Your task to perform on an android device: turn off airplane mode Image 0: 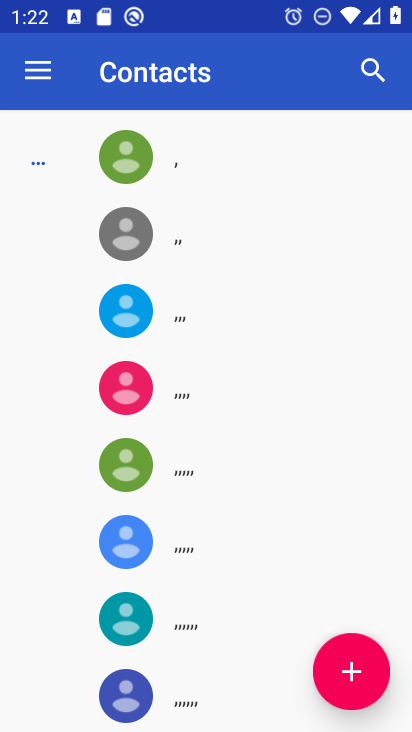
Step 0: press home button
Your task to perform on an android device: turn off airplane mode Image 1: 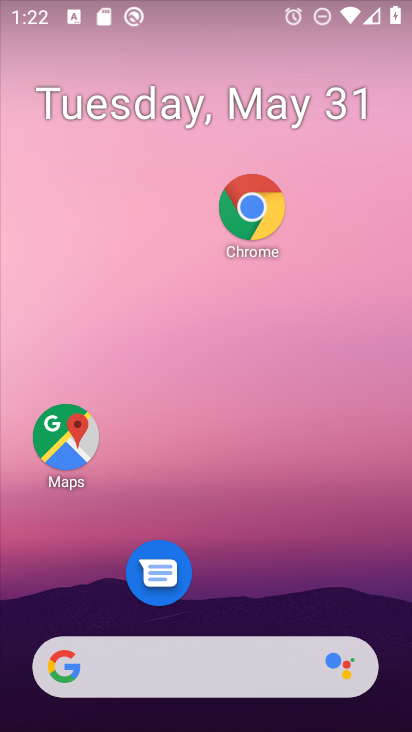
Step 1: drag from (202, 665) to (238, 82)
Your task to perform on an android device: turn off airplane mode Image 2: 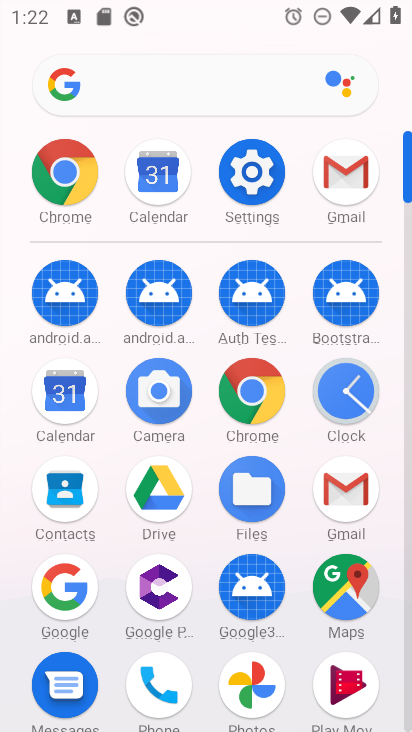
Step 2: click (262, 205)
Your task to perform on an android device: turn off airplane mode Image 3: 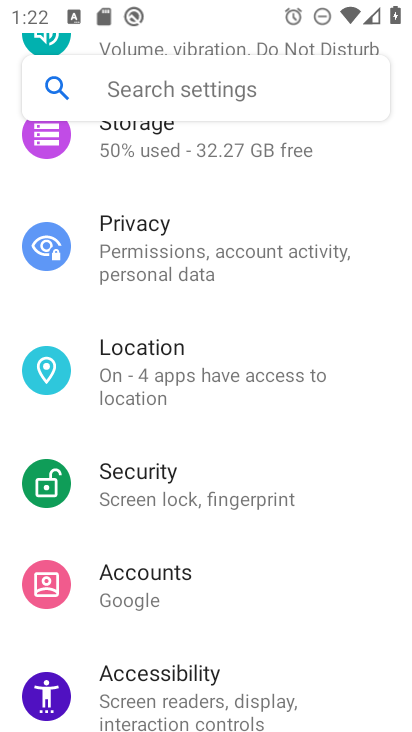
Step 3: drag from (265, 292) to (380, 481)
Your task to perform on an android device: turn off airplane mode Image 4: 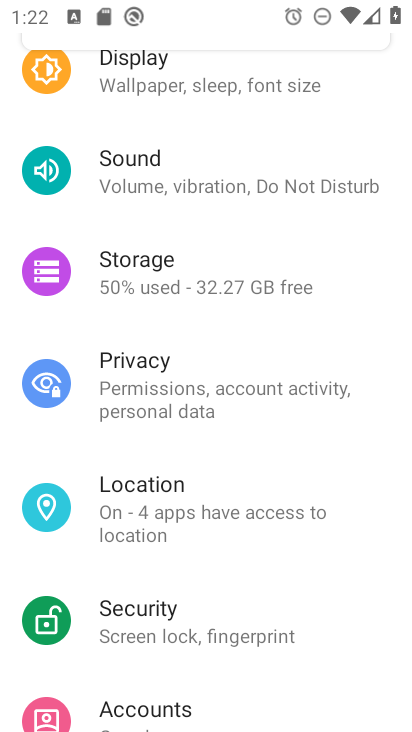
Step 4: drag from (132, 167) to (224, 728)
Your task to perform on an android device: turn off airplane mode Image 5: 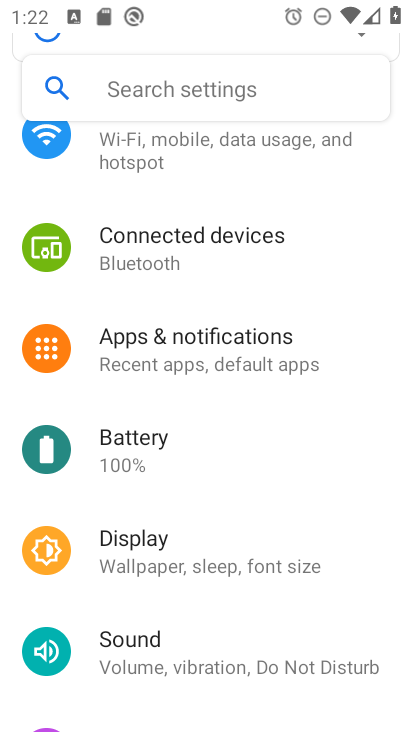
Step 5: drag from (130, 235) to (213, 723)
Your task to perform on an android device: turn off airplane mode Image 6: 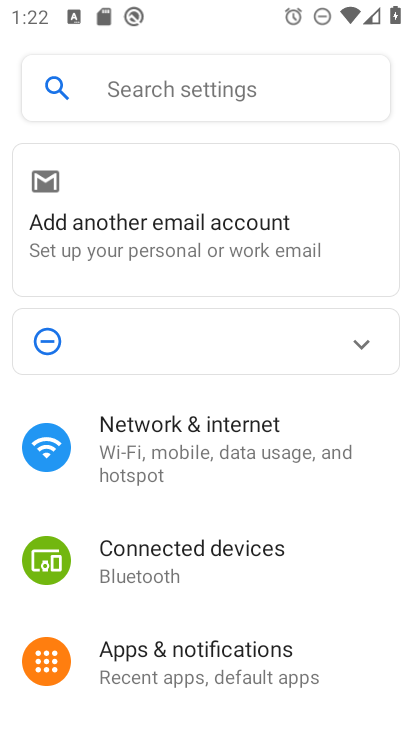
Step 6: click (241, 443)
Your task to perform on an android device: turn off airplane mode Image 7: 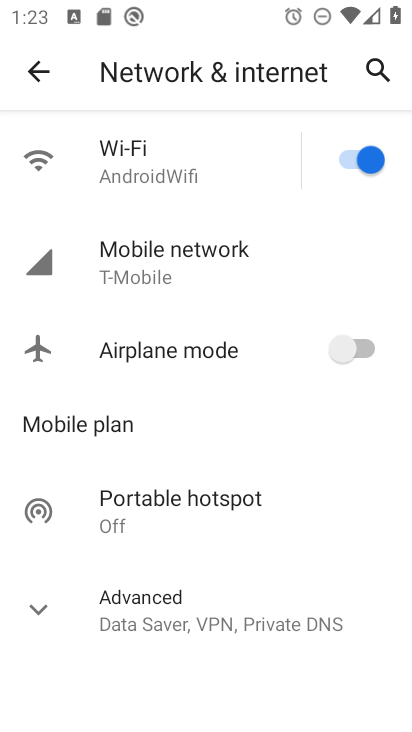
Step 7: task complete